Your task to perform on an android device: change alarm snooze length Image 0: 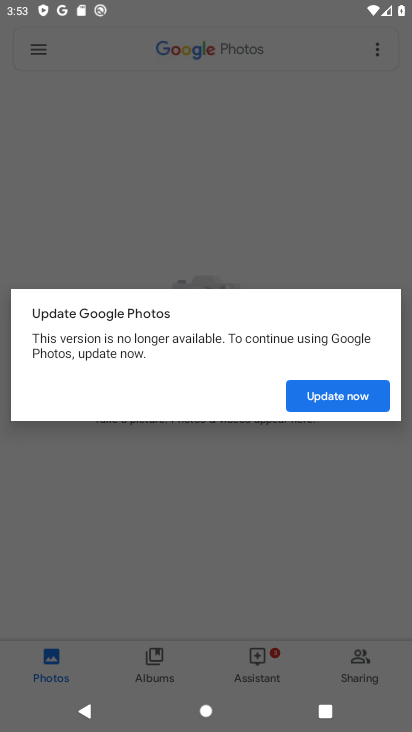
Step 0: press home button
Your task to perform on an android device: change alarm snooze length Image 1: 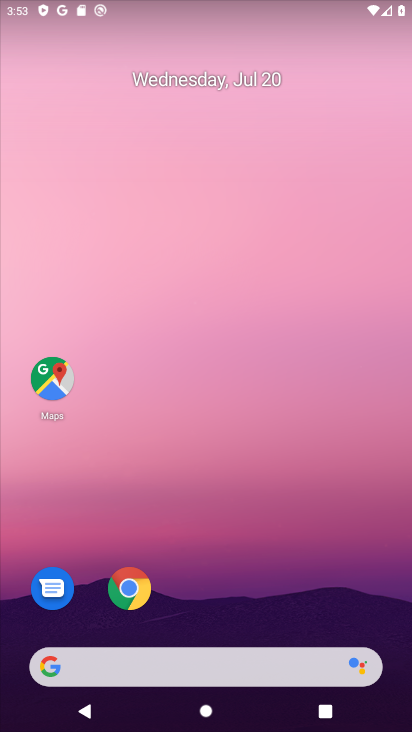
Step 1: drag from (179, 609) to (258, 26)
Your task to perform on an android device: change alarm snooze length Image 2: 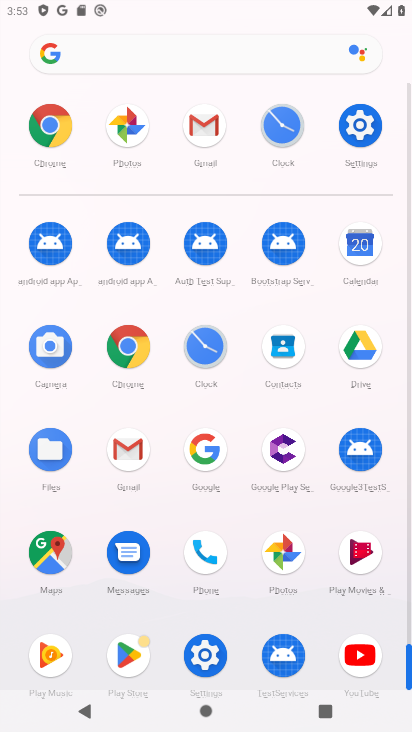
Step 2: click (196, 359)
Your task to perform on an android device: change alarm snooze length Image 3: 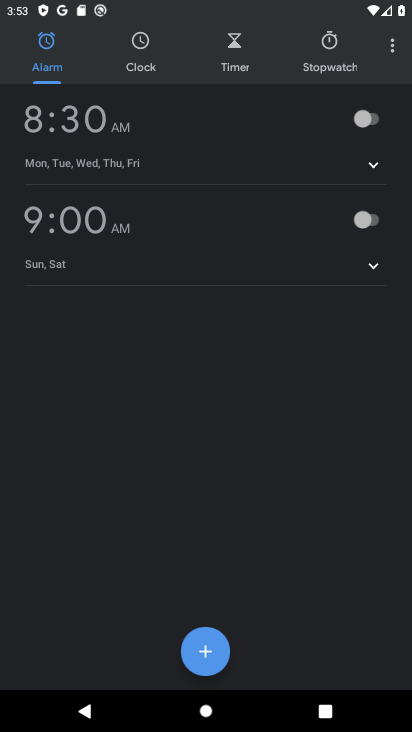
Step 3: click (402, 50)
Your task to perform on an android device: change alarm snooze length Image 4: 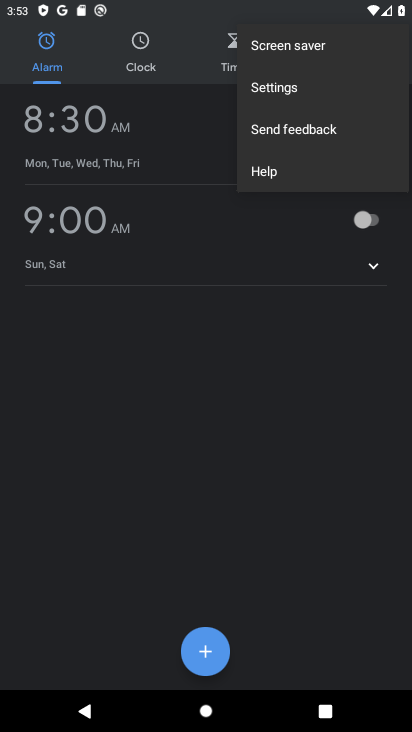
Step 4: click (312, 98)
Your task to perform on an android device: change alarm snooze length Image 5: 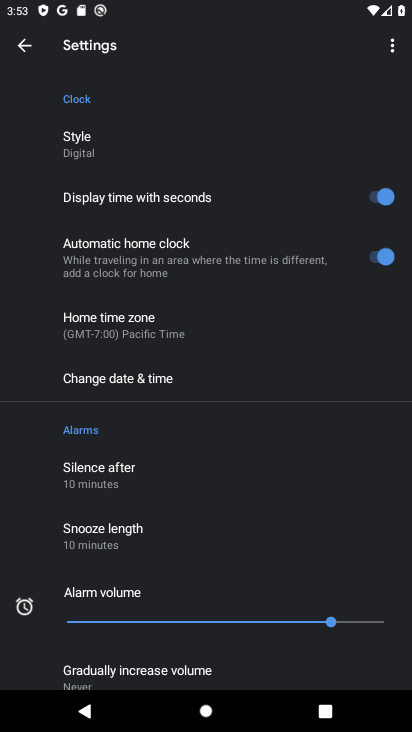
Step 5: click (158, 546)
Your task to perform on an android device: change alarm snooze length Image 6: 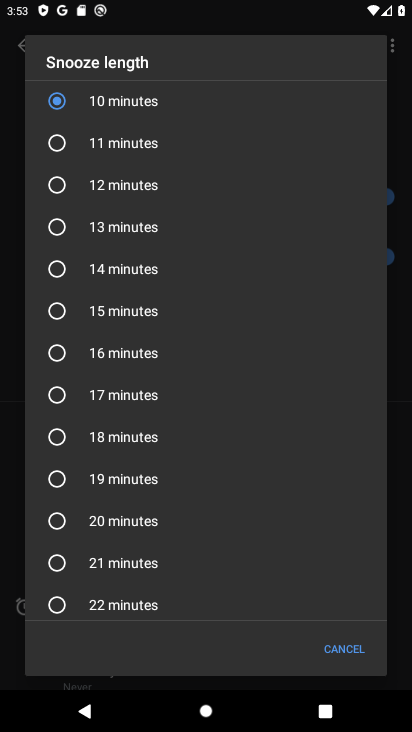
Step 6: click (153, 541)
Your task to perform on an android device: change alarm snooze length Image 7: 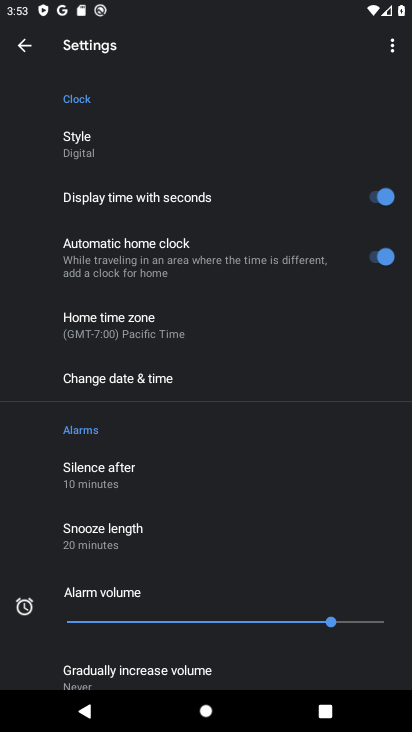
Step 7: task complete